Your task to perform on an android device: refresh tabs in the chrome app Image 0: 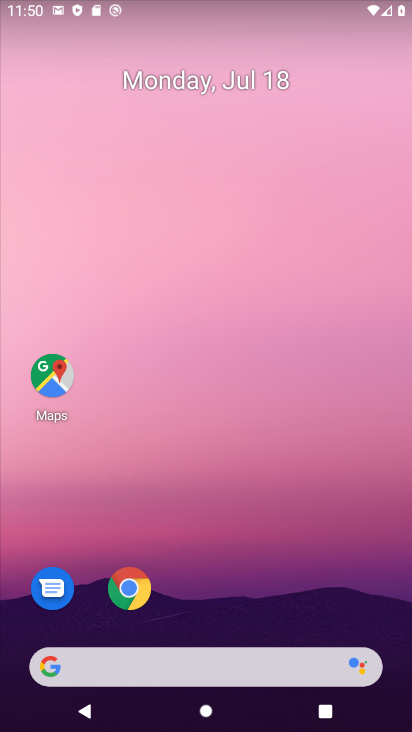
Step 0: drag from (346, 616) to (186, 135)
Your task to perform on an android device: refresh tabs in the chrome app Image 1: 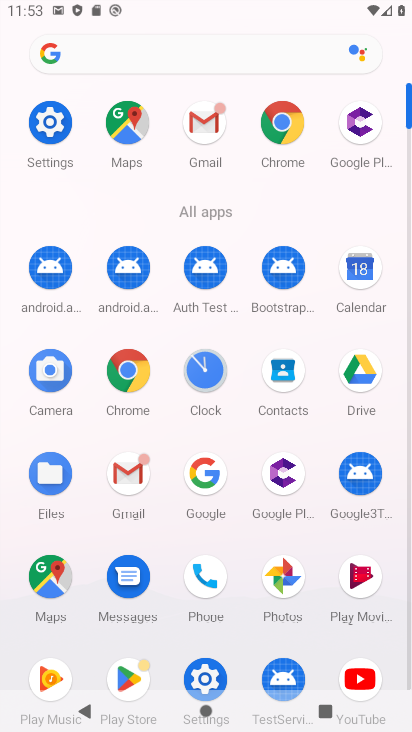
Step 1: click (128, 353)
Your task to perform on an android device: refresh tabs in the chrome app Image 2: 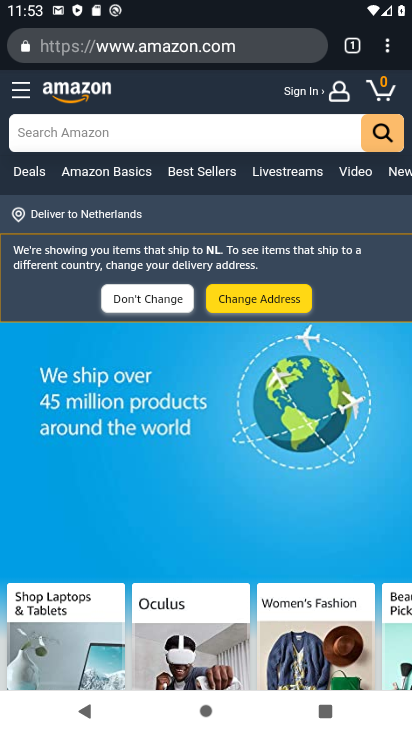
Step 2: press back button
Your task to perform on an android device: refresh tabs in the chrome app Image 3: 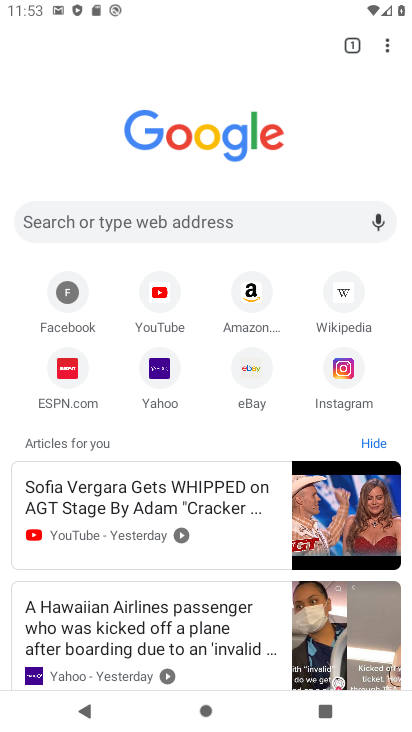
Step 3: click (387, 44)
Your task to perform on an android device: refresh tabs in the chrome app Image 4: 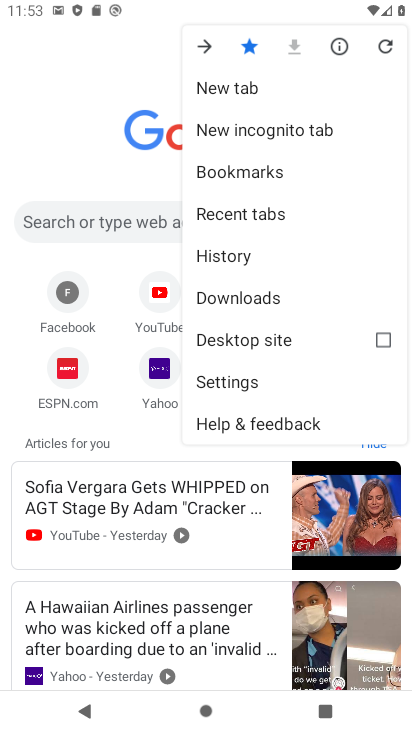
Step 4: click (387, 44)
Your task to perform on an android device: refresh tabs in the chrome app Image 5: 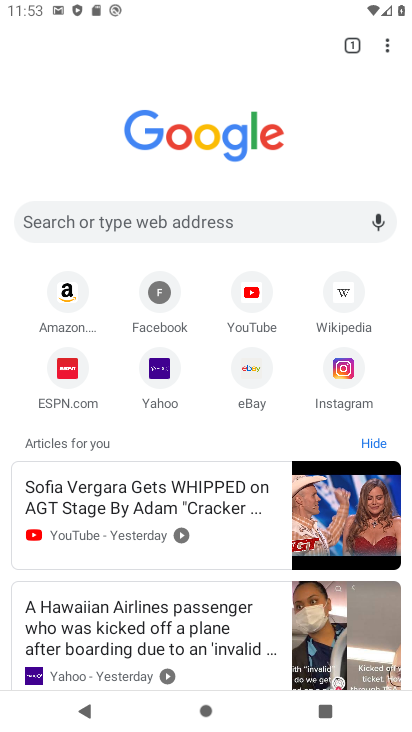
Step 5: task complete